Your task to perform on an android device: Clear the shopping cart on walmart.com. Add logitech g903 to the cart on walmart.com Image 0: 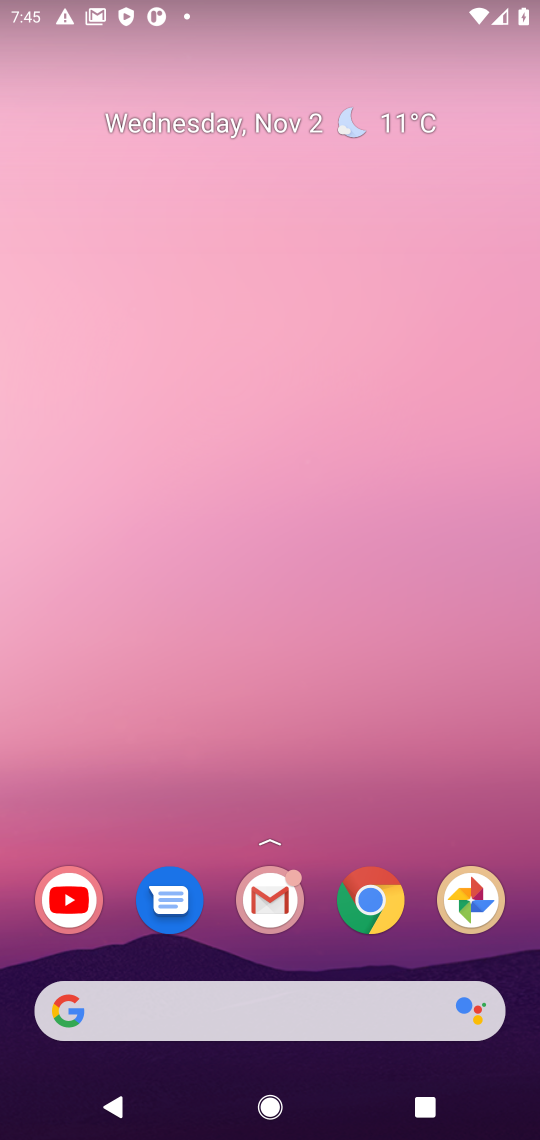
Step 0: click (207, 1000)
Your task to perform on an android device: Clear the shopping cart on walmart.com. Add logitech g903 to the cart on walmart.com Image 1: 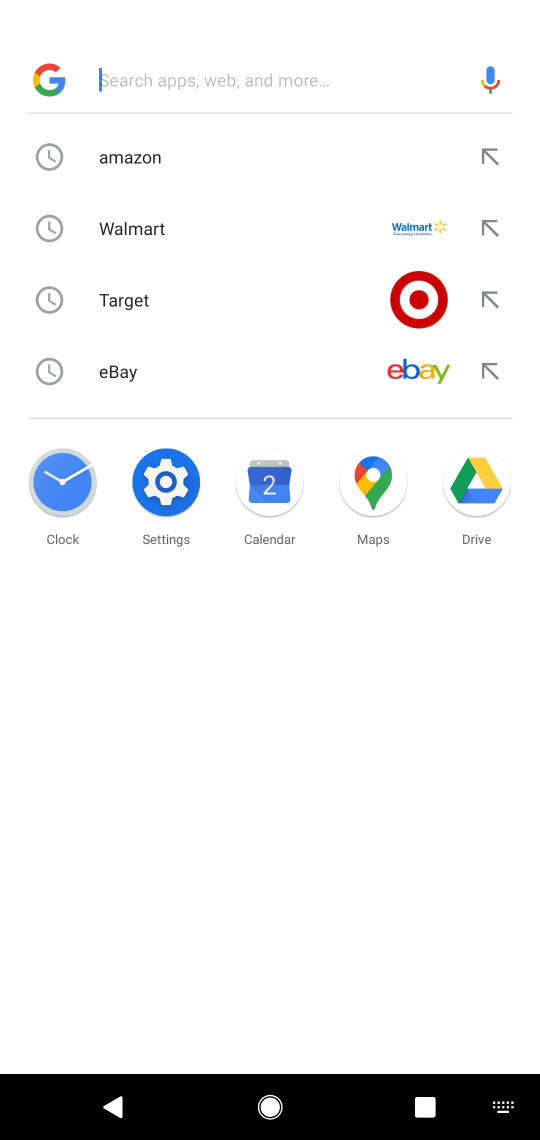
Step 1: click (174, 224)
Your task to perform on an android device: Clear the shopping cart on walmart.com. Add logitech g903 to the cart on walmart.com Image 2: 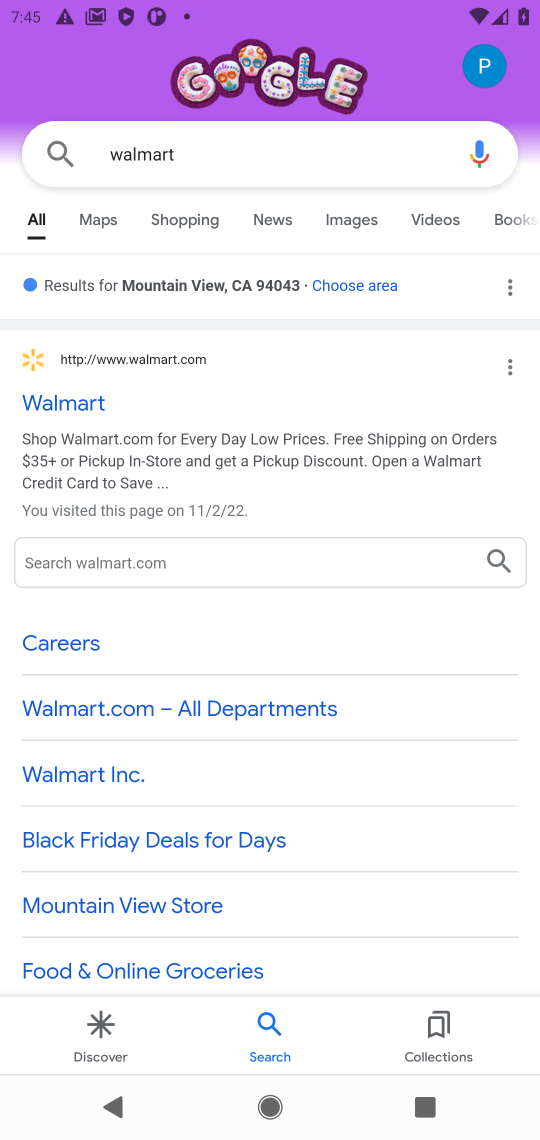
Step 2: click (81, 391)
Your task to perform on an android device: Clear the shopping cart on walmart.com. Add logitech g903 to the cart on walmart.com Image 3: 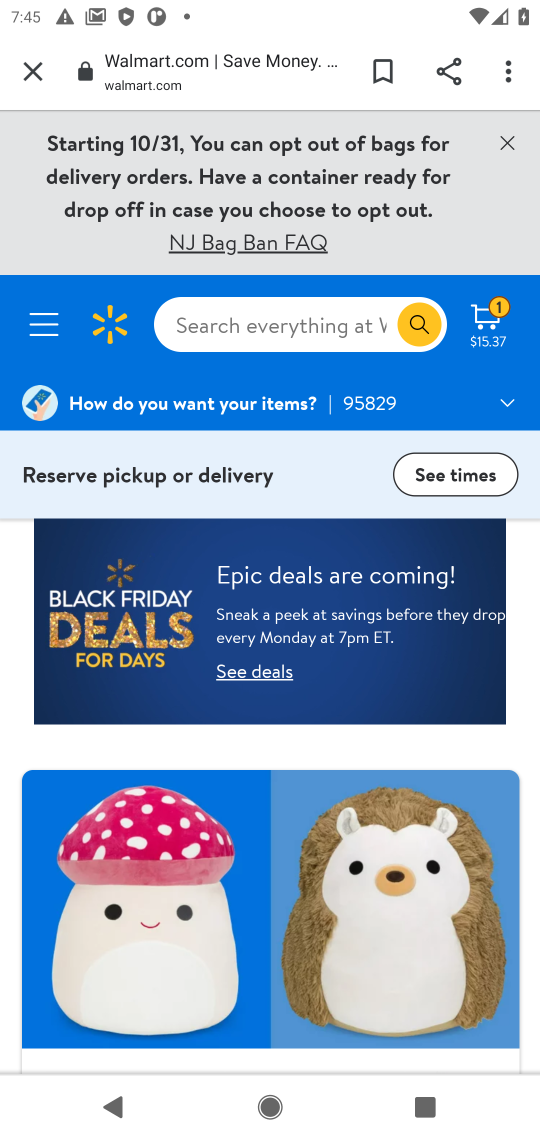
Step 3: click (492, 321)
Your task to perform on an android device: Clear the shopping cart on walmart.com. Add logitech g903 to the cart on walmart.com Image 4: 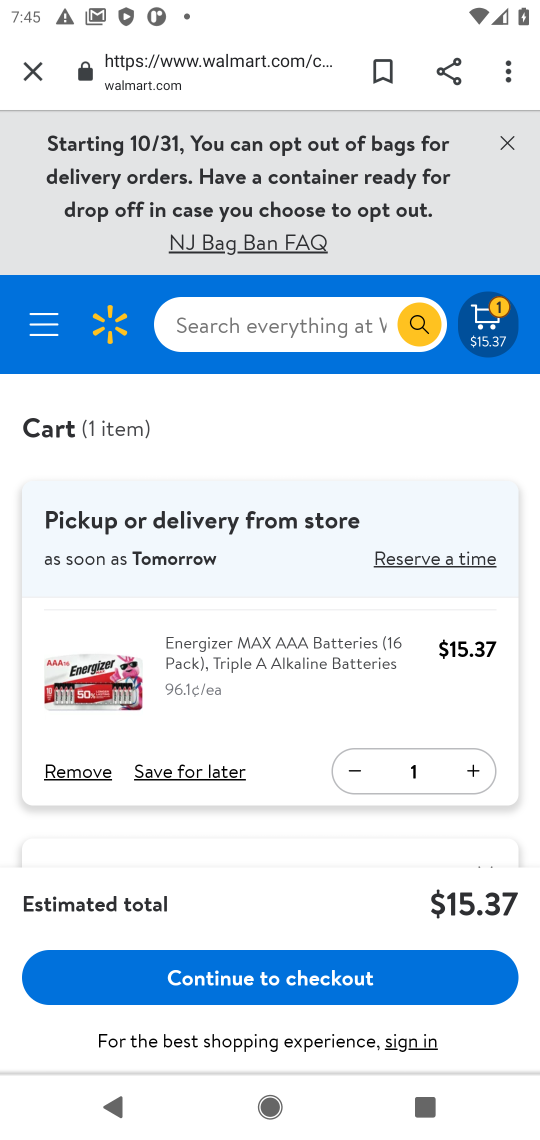
Step 4: click (70, 773)
Your task to perform on an android device: Clear the shopping cart on walmart.com. Add logitech g903 to the cart on walmart.com Image 5: 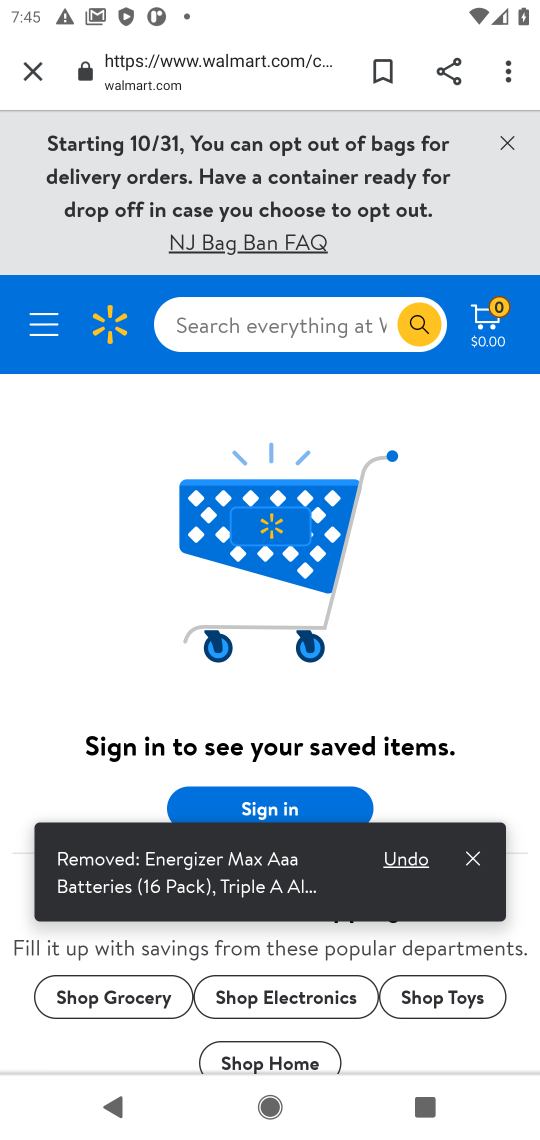
Step 5: click (477, 861)
Your task to perform on an android device: Clear the shopping cart on walmart.com. Add logitech g903 to the cart on walmart.com Image 6: 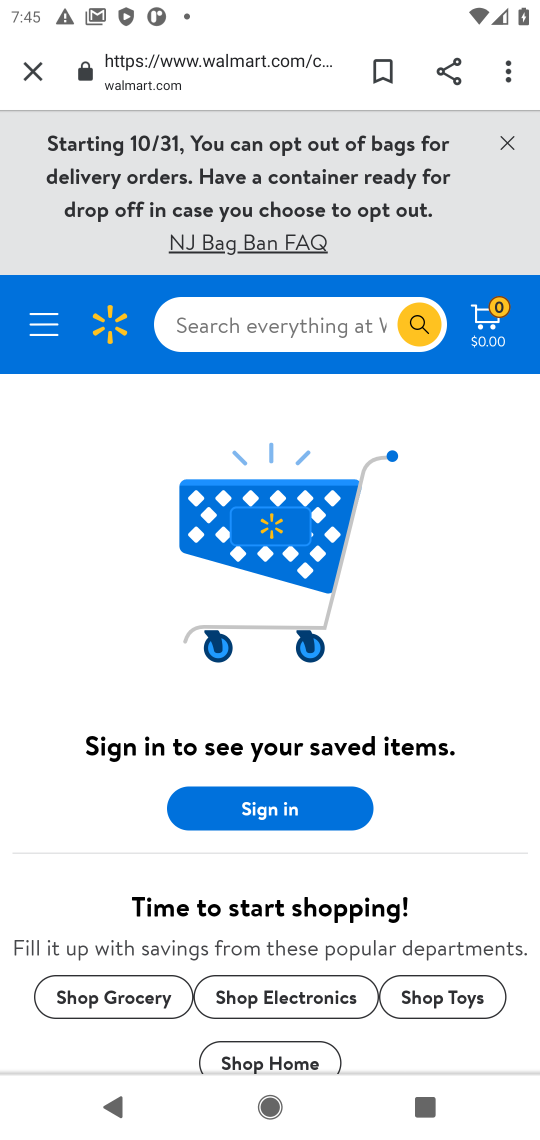
Step 6: click (232, 337)
Your task to perform on an android device: Clear the shopping cart on walmart.com. Add logitech g903 to the cart on walmart.com Image 7: 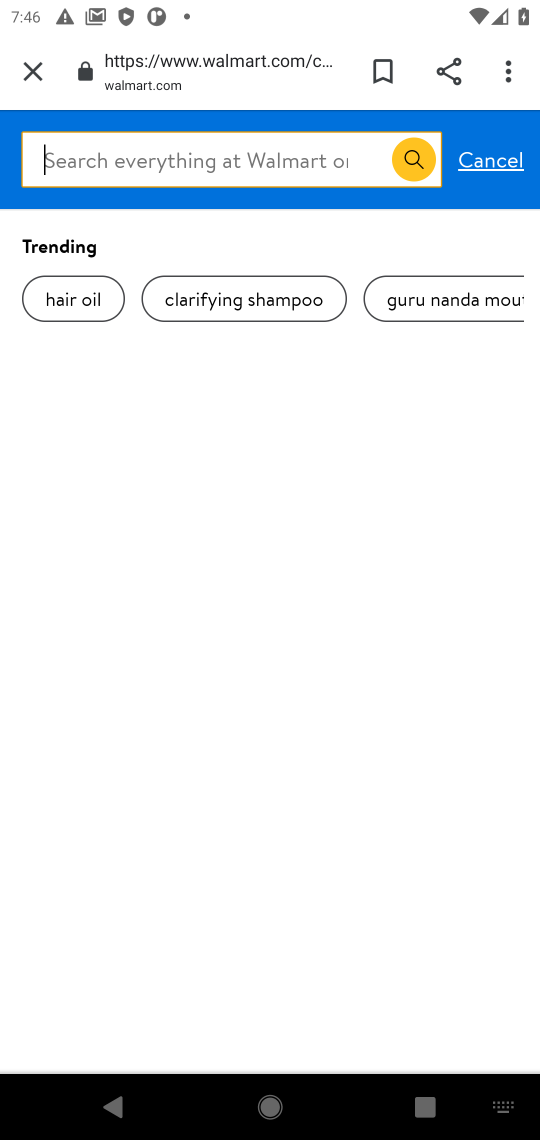
Step 7: type "logitech g903"
Your task to perform on an android device: Clear the shopping cart on walmart.com. Add logitech g903 to the cart on walmart.com Image 8: 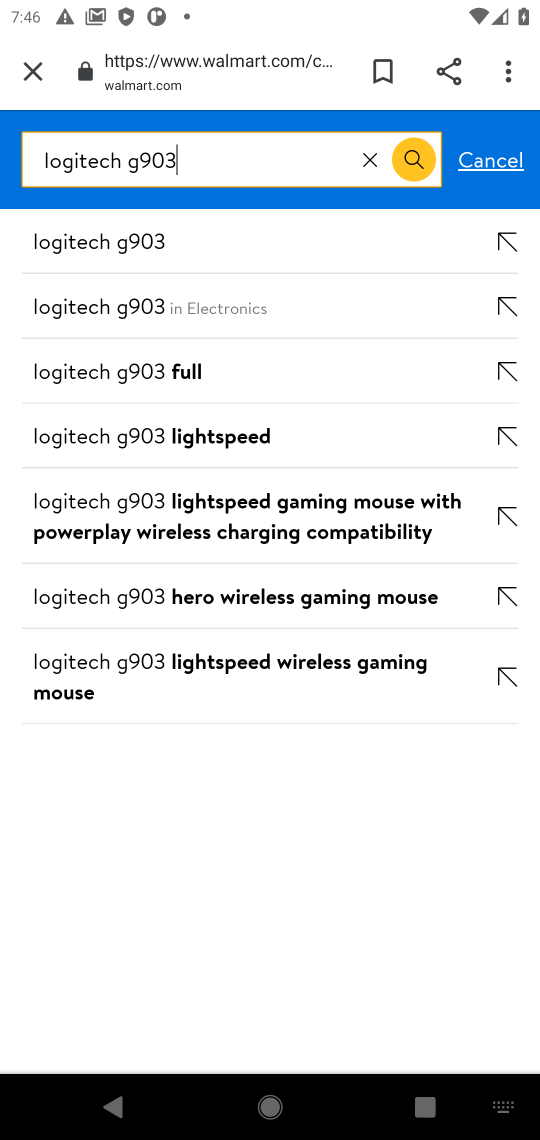
Step 8: click (143, 241)
Your task to perform on an android device: Clear the shopping cart on walmart.com. Add logitech g903 to the cart on walmart.com Image 9: 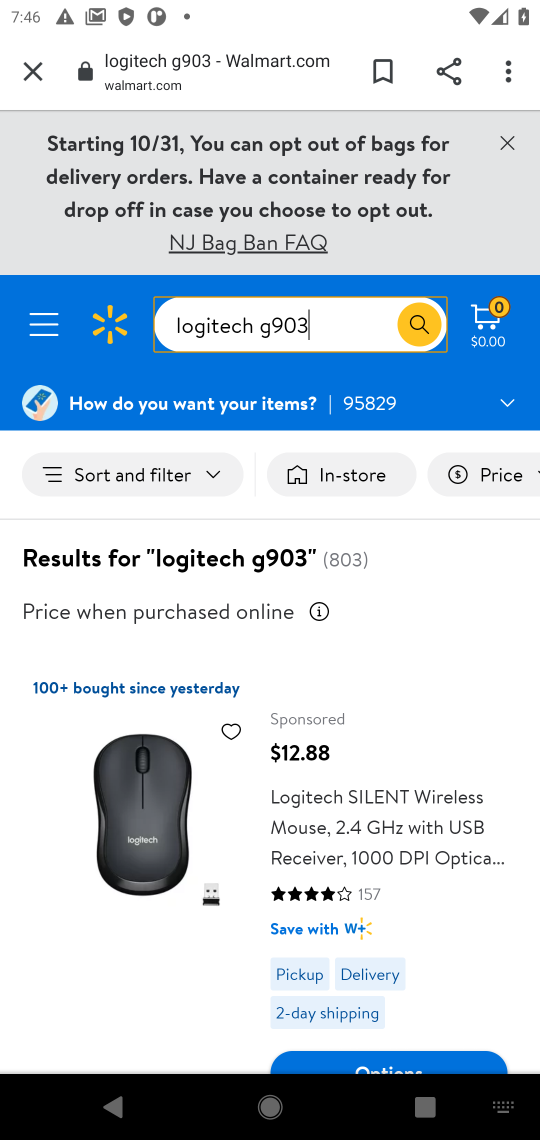
Step 9: drag from (419, 653) to (397, 383)
Your task to perform on an android device: Clear the shopping cart on walmart.com. Add logitech g903 to the cart on walmart.com Image 10: 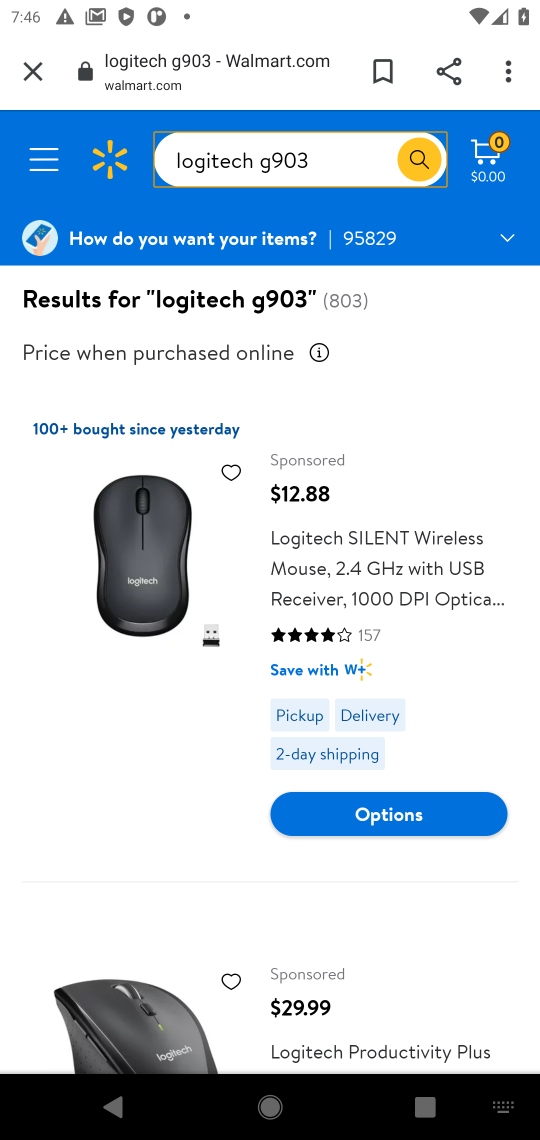
Step 10: click (375, 813)
Your task to perform on an android device: Clear the shopping cart on walmart.com. Add logitech g903 to the cart on walmart.com Image 11: 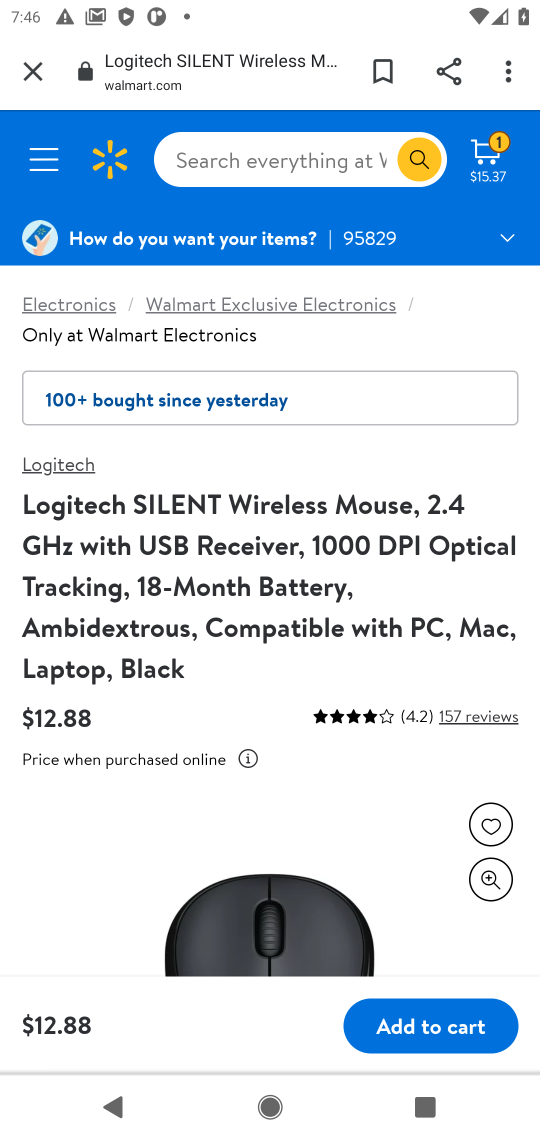
Step 11: drag from (265, 676) to (243, 455)
Your task to perform on an android device: Clear the shopping cart on walmart.com. Add logitech g903 to the cart on walmart.com Image 12: 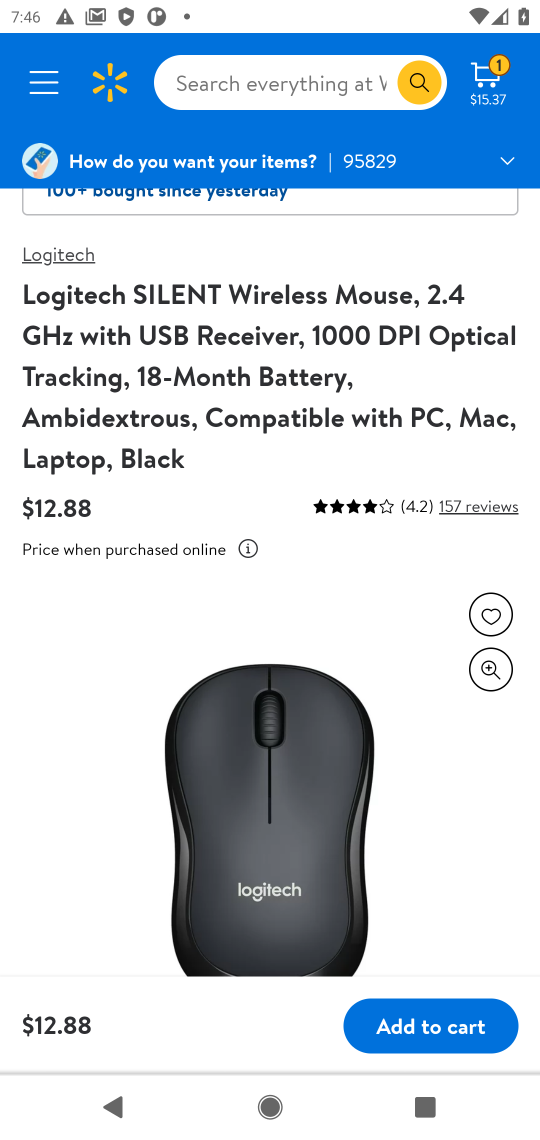
Step 12: click (414, 1025)
Your task to perform on an android device: Clear the shopping cart on walmart.com. Add logitech g903 to the cart on walmart.com Image 13: 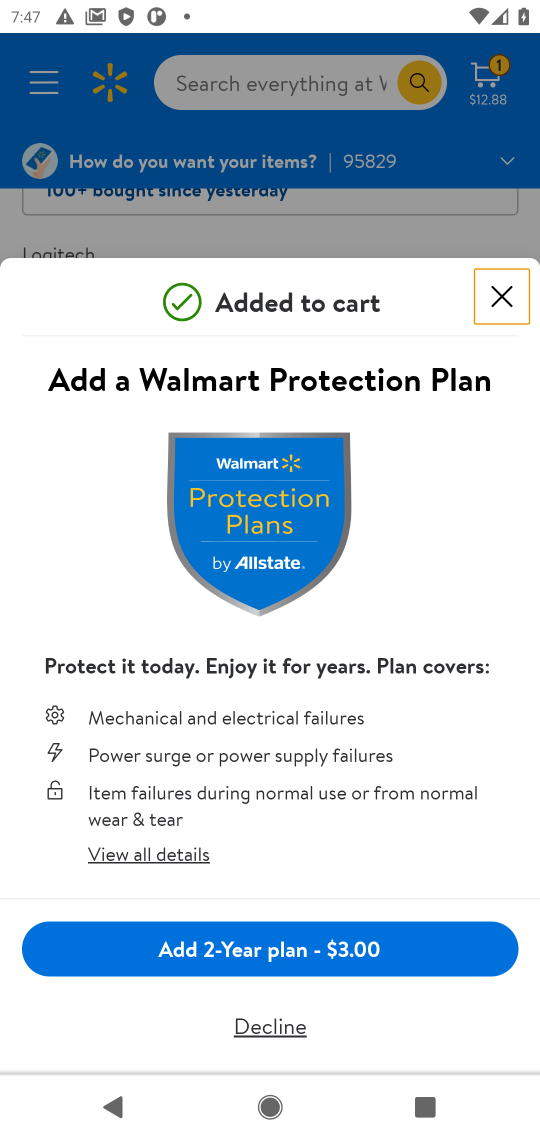
Step 13: click (500, 288)
Your task to perform on an android device: Clear the shopping cart on walmart.com. Add logitech g903 to the cart on walmart.com Image 14: 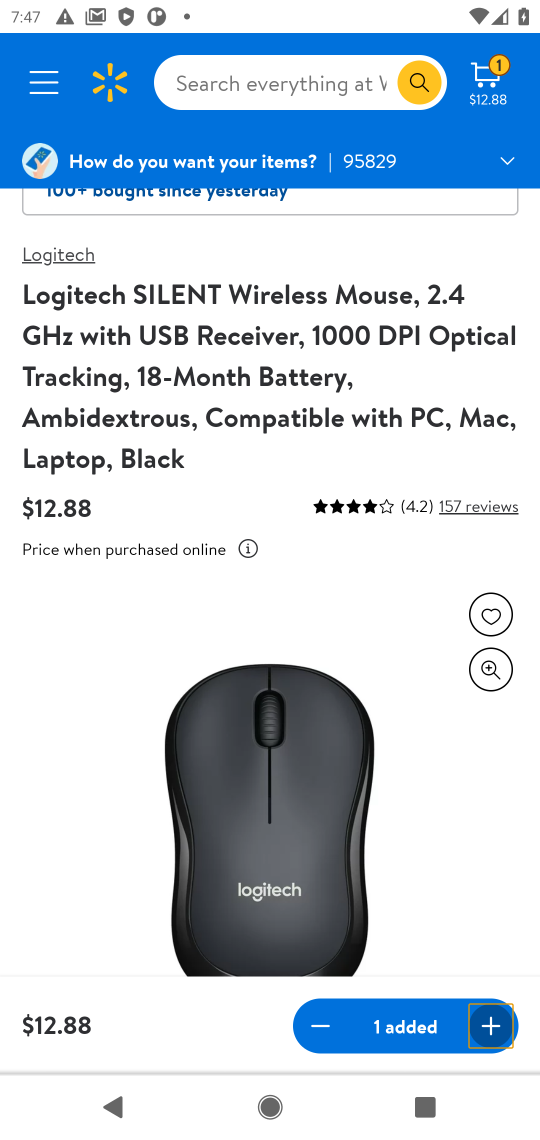
Step 14: task complete